Your task to perform on an android device: Open Google Maps Image 0: 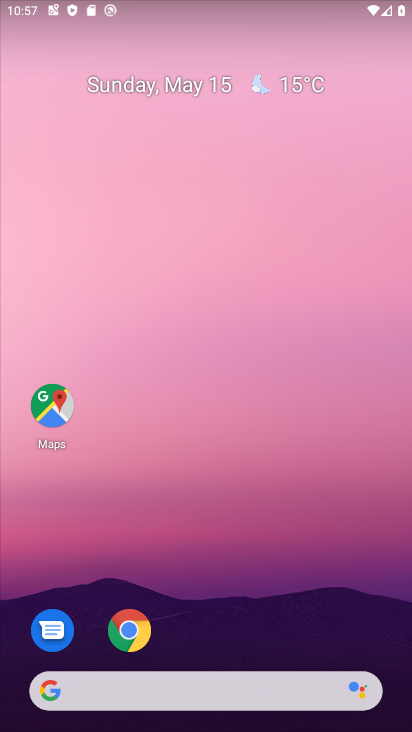
Step 0: drag from (200, 716) to (195, 176)
Your task to perform on an android device: Open Google Maps Image 1: 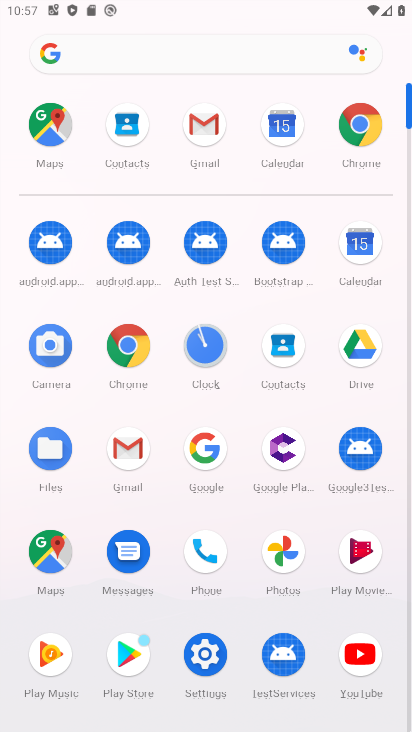
Step 1: click (50, 549)
Your task to perform on an android device: Open Google Maps Image 2: 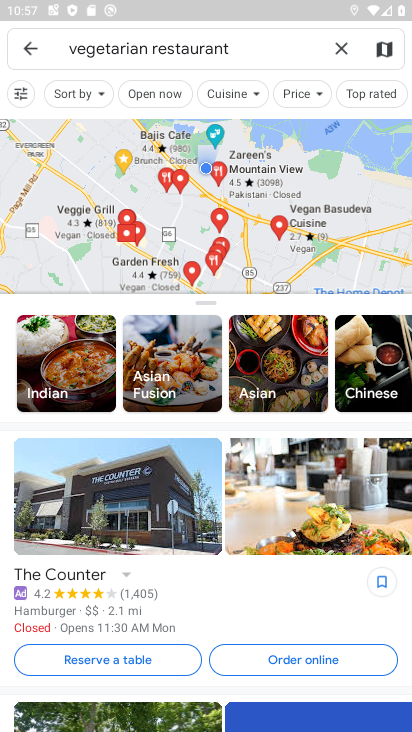
Step 2: task complete